Your task to perform on an android device: change the clock display to digital Image 0: 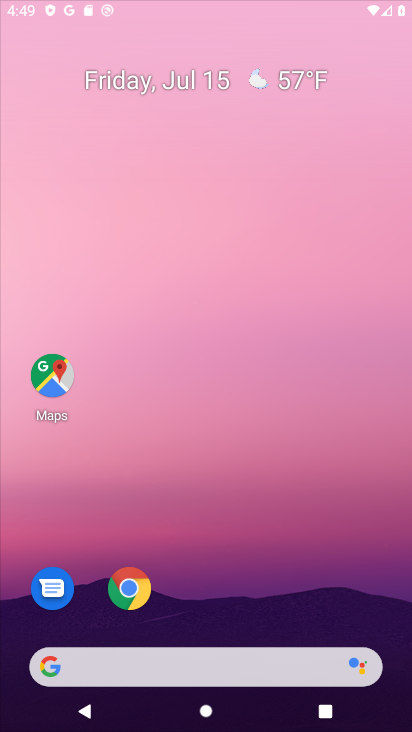
Step 0: drag from (288, 88) to (251, 81)
Your task to perform on an android device: change the clock display to digital Image 1: 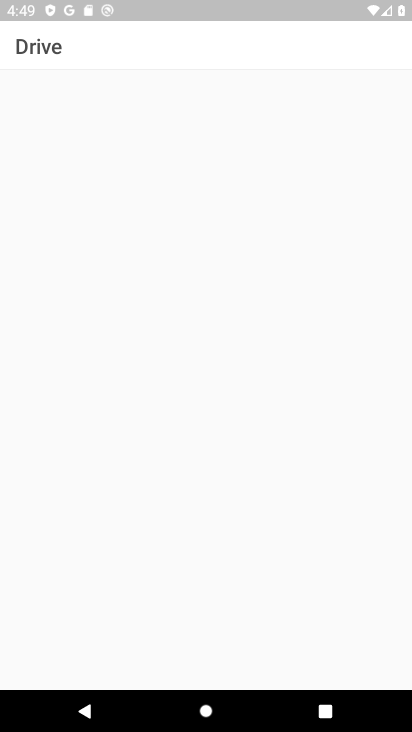
Step 1: press home button
Your task to perform on an android device: change the clock display to digital Image 2: 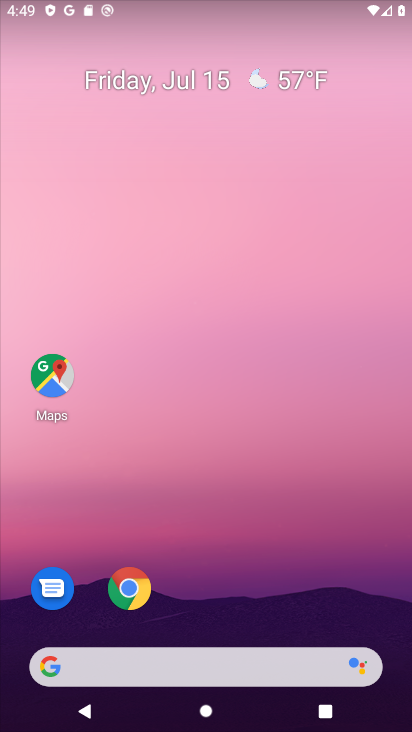
Step 2: drag from (247, 606) to (273, 133)
Your task to perform on an android device: change the clock display to digital Image 3: 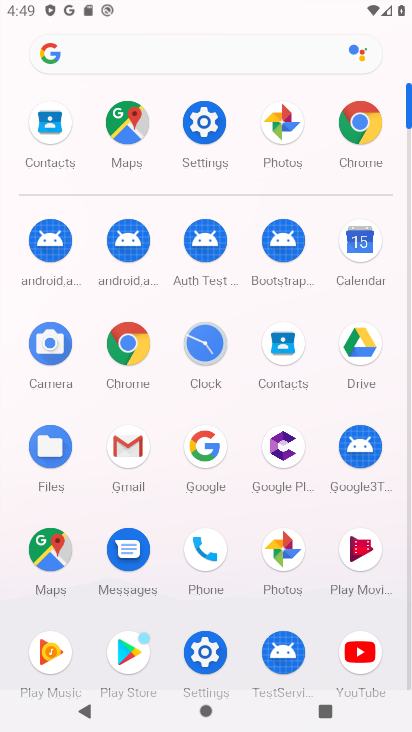
Step 3: click (202, 333)
Your task to perform on an android device: change the clock display to digital Image 4: 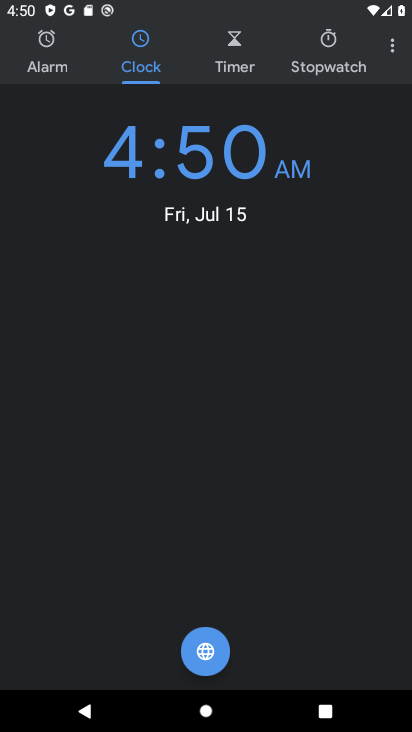
Step 4: click (388, 45)
Your task to perform on an android device: change the clock display to digital Image 5: 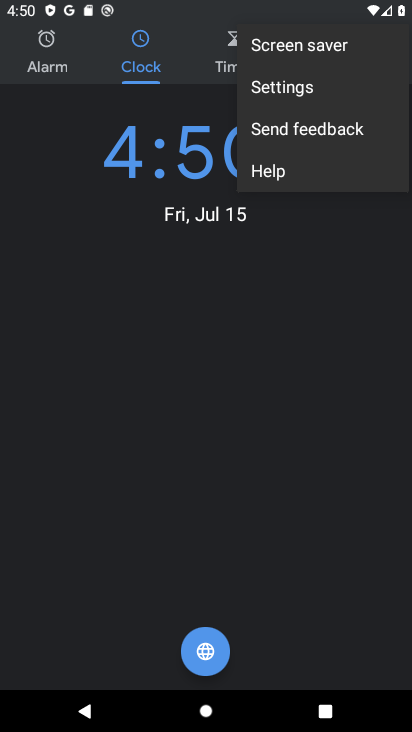
Step 5: click (296, 87)
Your task to perform on an android device: change the clock display to digital Image 6: 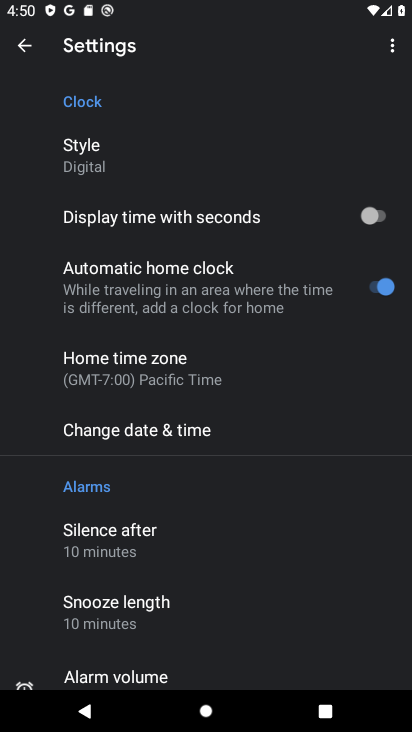
Step 6: click (63, 156)
Your task to perform on an android device: change the clock display to digital Image 7: 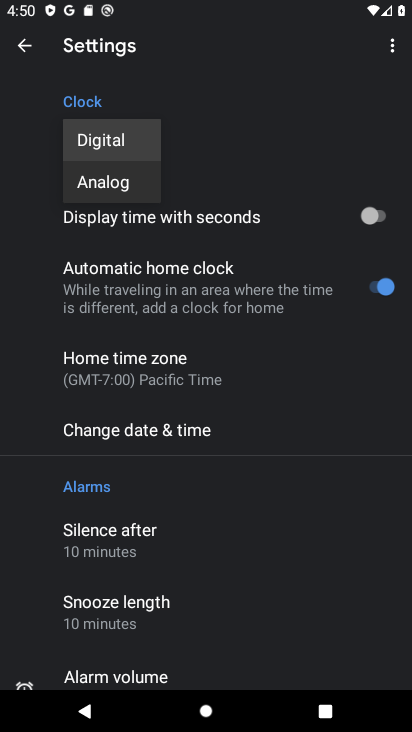
Step 7: click (133, 128)
Your task to perform on an android device: change the clock display to digital Image 8: 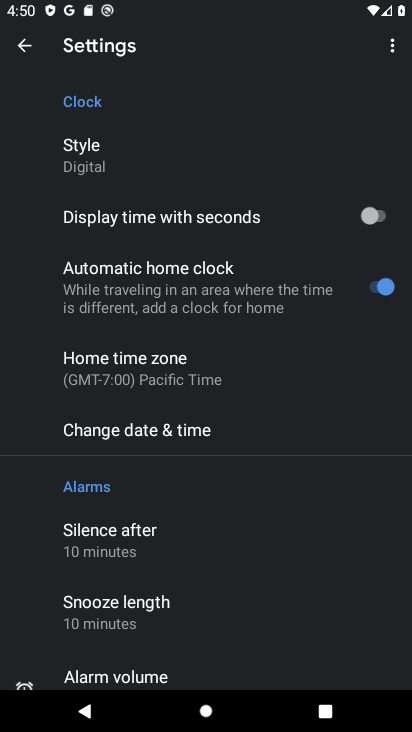
Step 8: task complete